Your task to perform on an android device: toggle airplane mode Image 0: 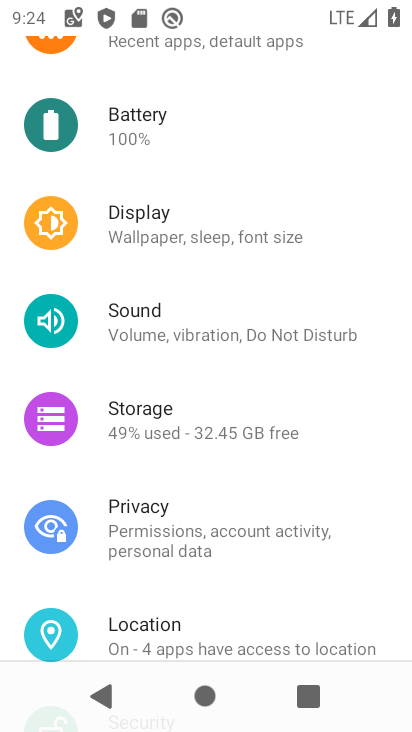
Step 0: drag from (366, 14) to (219, 617)
Your task to perform on an android device: toggle airplane mode Image 1: 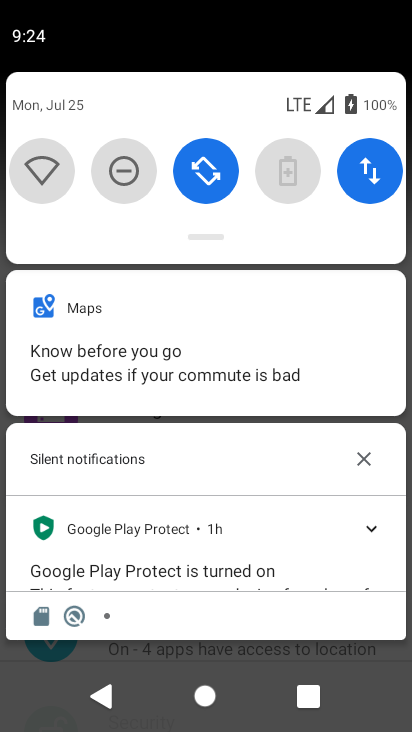
Step 1: drag from (198, 220) to (191, 721)
Your task to perform on an android device: toggle airplane mode Image 2: 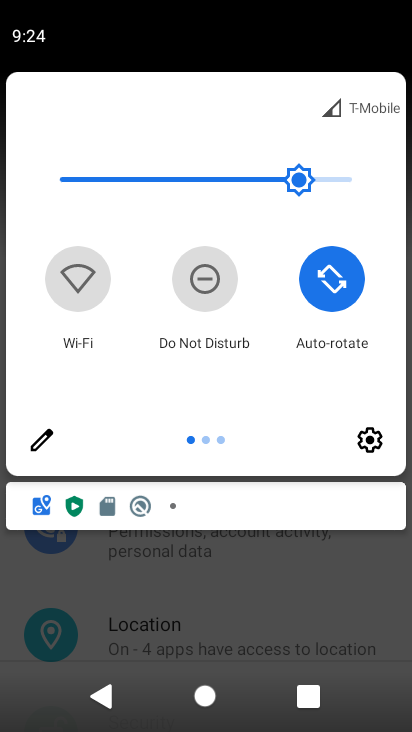
Step 2: drag from (374, 281) to (0, 317)
Your task to perform on an android device: toggle airplane mode Image 3: 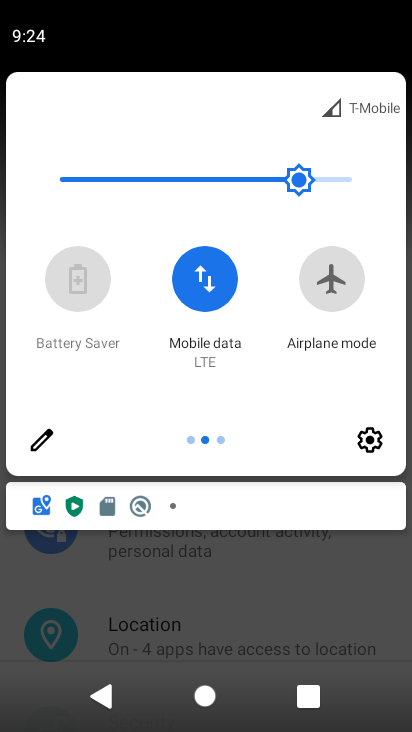
Step 3: click (329, 275)
Your task to perform on an android device: toggle airplane mode Image 4: 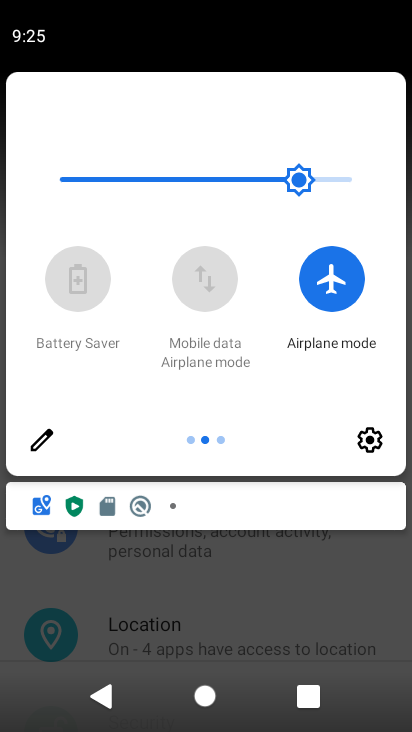
Step 4: task complete